Your task to perform on an android device: change the clock display to show seconds Image 0: 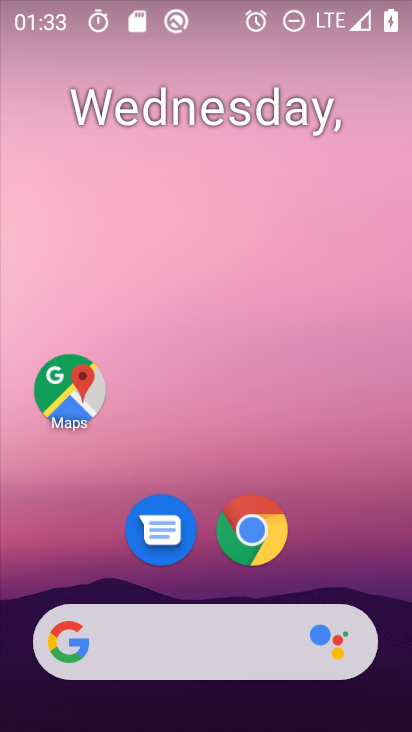
Step 0: drag from (288, 618) to (276, 66)
Your task to perform on an android device: change the clock display to show seconds Image 1: 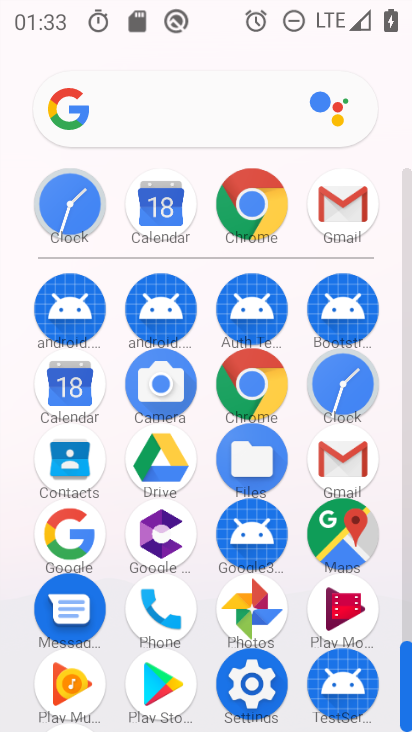
Step 1: click (254, 686)
Your task to perform on an android device: change the clock display to show seconds Image 2: 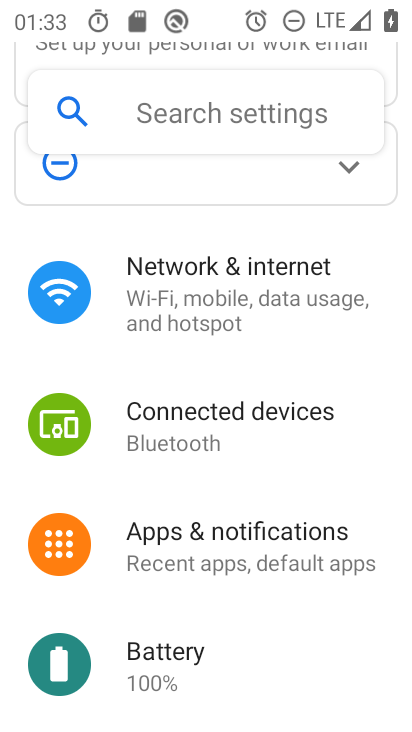
Step 2: press home button
Your task to perform on an android device: change the clock display to show seconds Image 3: 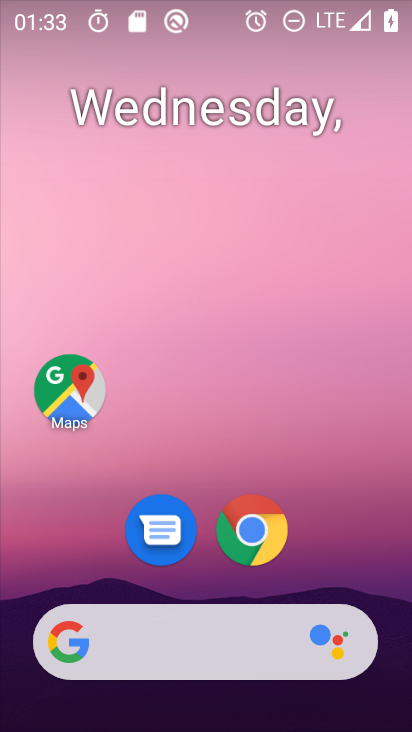
Step 3: drag from (334, 628) to (339, 113)
Your task to perform on an android device: change the clock display to show seconds Image 4: 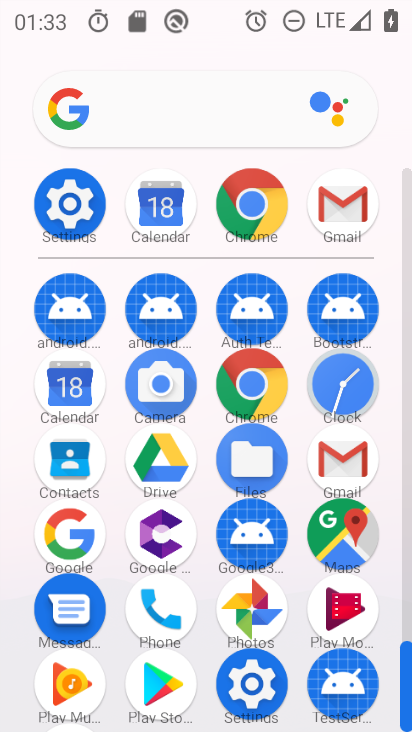
Step 4: click (342, 384)
Your task to perform on an android device: change the clock display to show seconds Image 5: 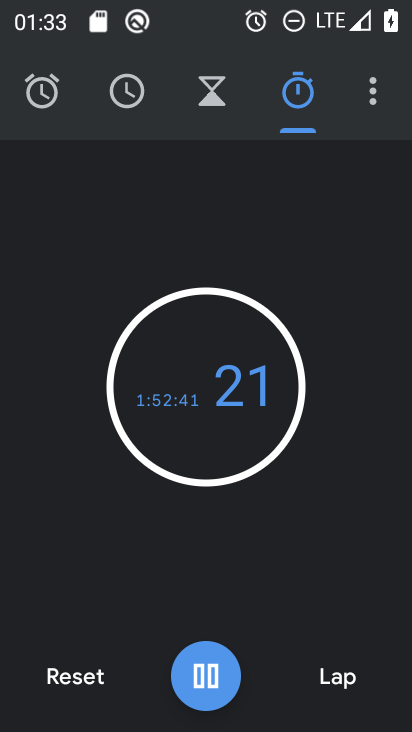
Step 5: click (373, 95)
Your task to perform on an android device: change the clock display to show seconds Image 6: 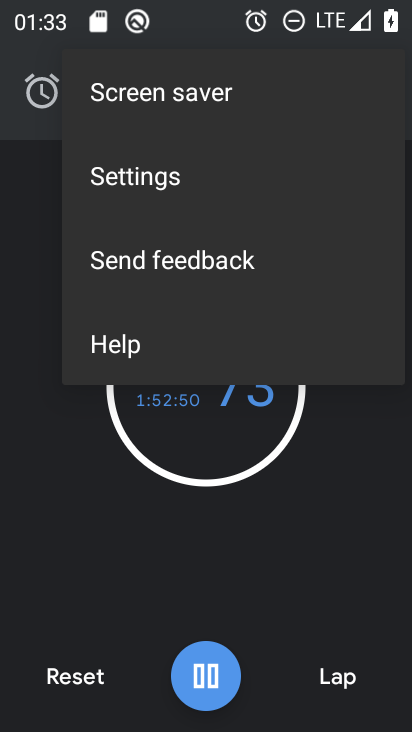
Step 6: click (222, 186)
Your task to perform on an android device: change the clock display to show seconds Image 7: 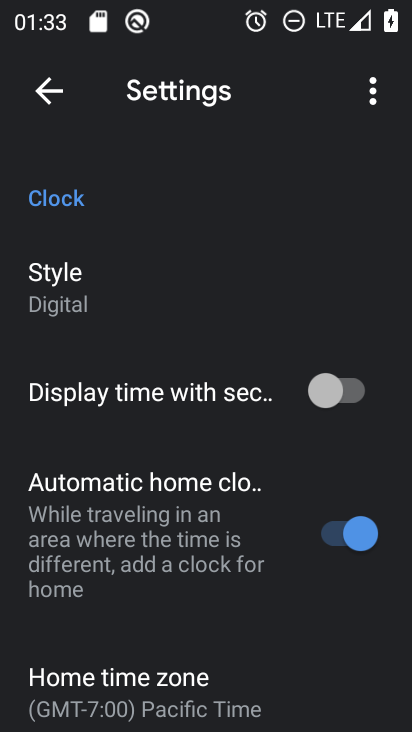
Step 7: click (355, 386)
Your task to perform on an android device: change the clock display to show seconds Image 8: 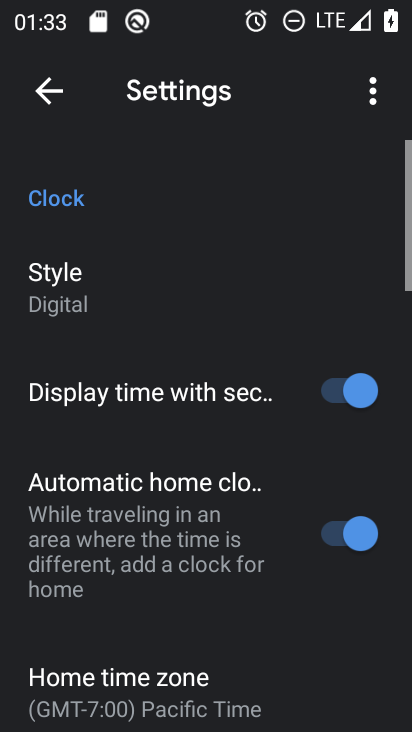
Step 8: task complete